Your task to perform on an android device: turn off notifications in google photos Image 0: 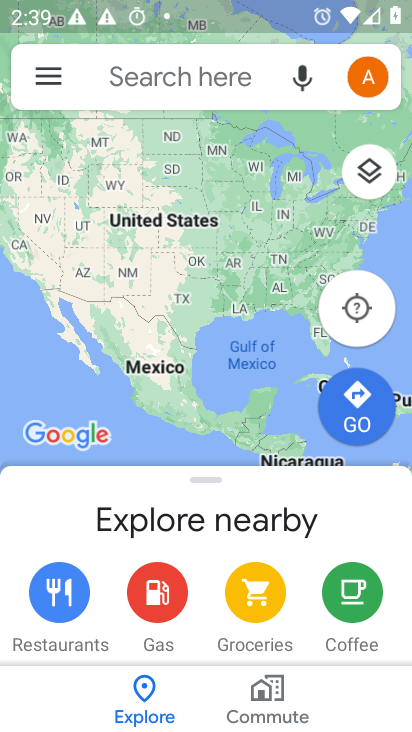
Step 0: press home button
Your task to perform on an android device: turn off notifications in google photos Image 1: 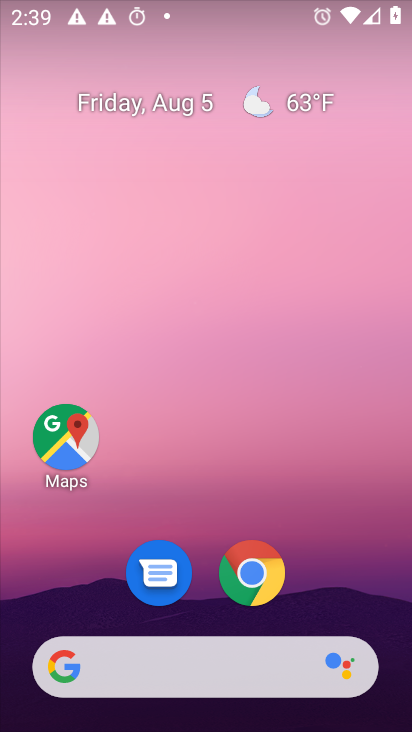
Step 1: drag from (348, 584) to (370, 114)
Your task to perform on an android device: turn off notifications in google photos Image 2: 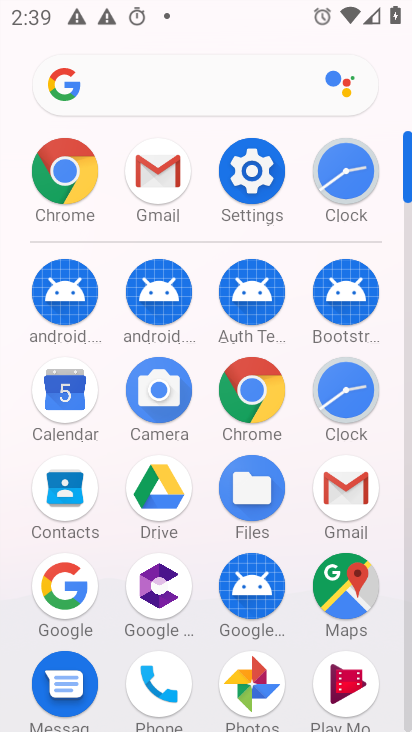
Step 2: click (253, 678)
Your task to perform on an android device: turn off notifications in google photos Image 3: 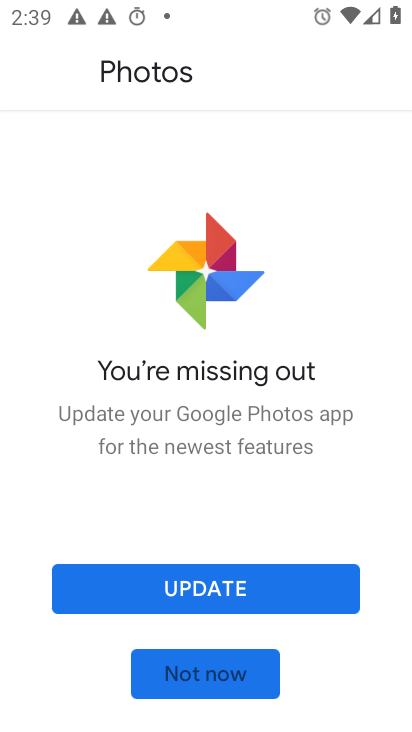
Step 3: click (216, 689)
Your task to perform on an android device: turn off notifications in google photos Image 4: 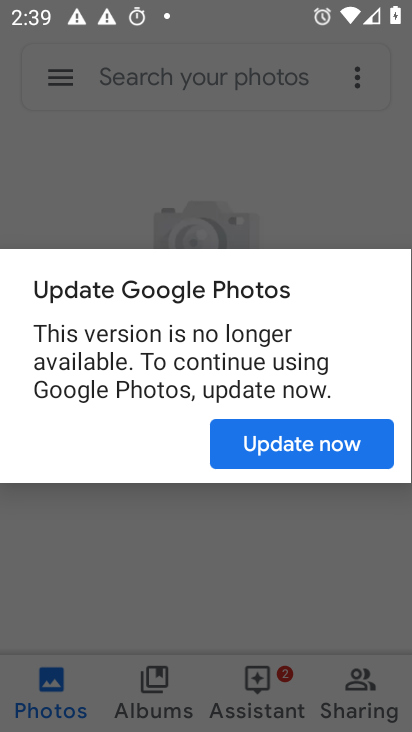
Step 4: click (325, 441)
Your task to perform on an android device: turn off notifications in google photos Image 5: 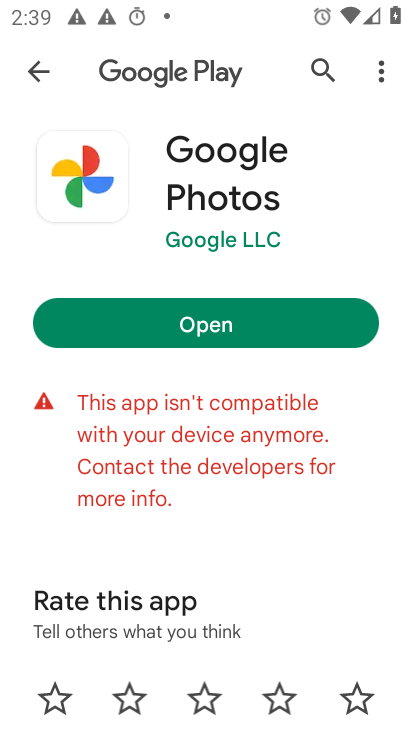
Step 5: click (331, 323)
Your task to perform on an android device: turn off notifications in google photos Image 6: 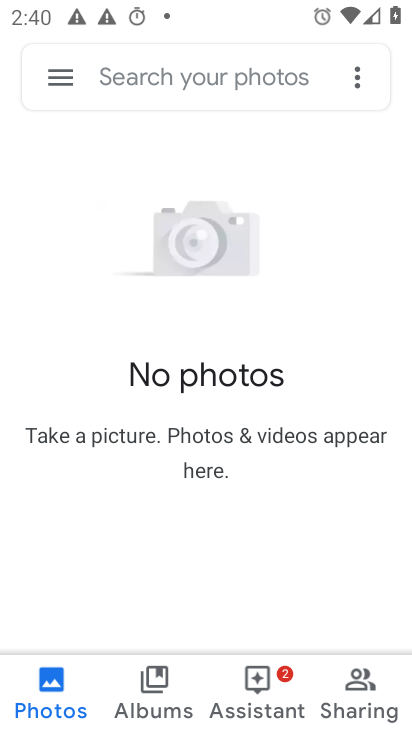
Step 6: click (61, 67)
Your task to perform on an android device: turn off notifications in google photos Image 7: 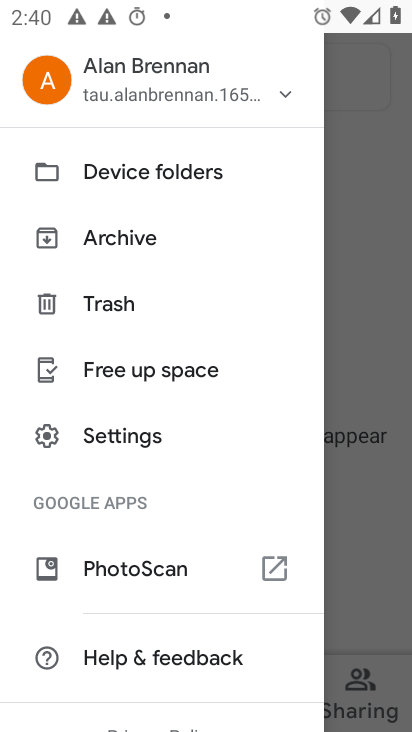
Step 7: drag from (249, 428) to (249, 335)
Your task to perform on an android device: turn off notifications in google photos Image 8: 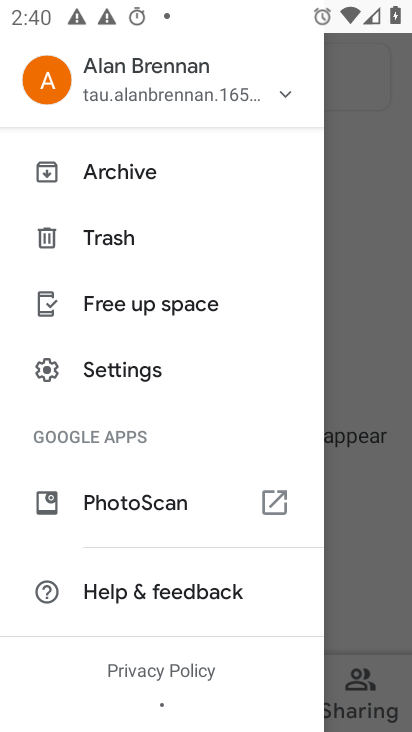
Step 8: click (194, 369)
Your task to perform on an android device: turn off notifications in google photos Image 9: 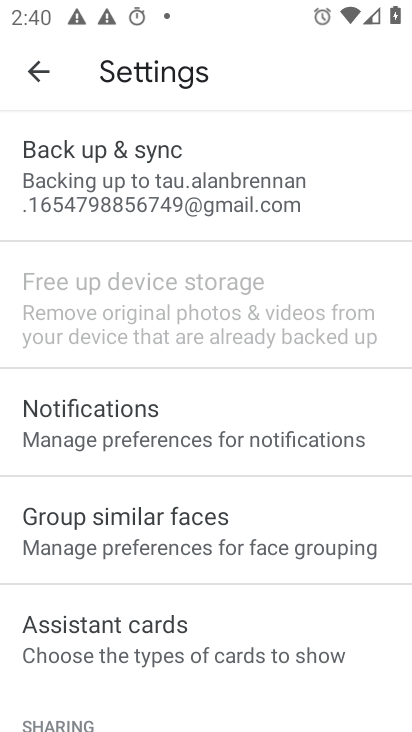
Step 9: click (240, 446)
Your task to perform on an android device: turn off notifications in google photos Image 10: 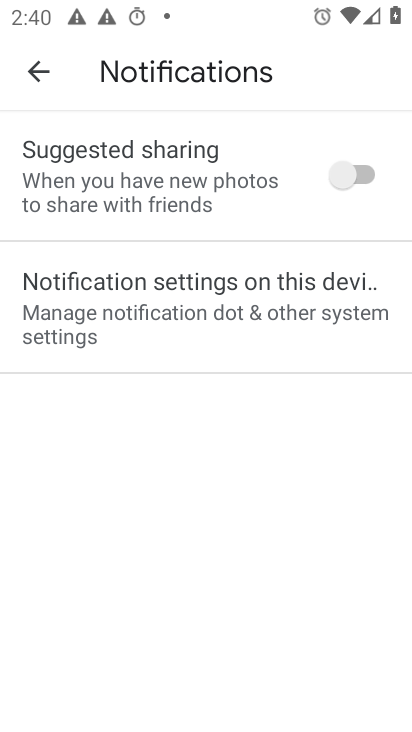
Step 10: click (300, 295)
Your task to perform on an android device: turn off notifications in google photos Image 11: 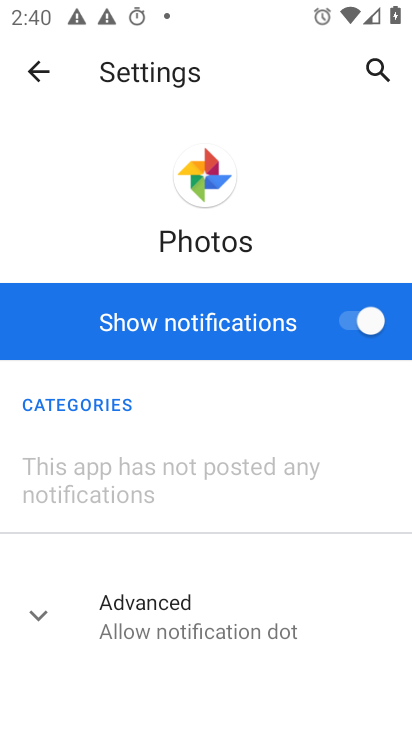
Step 11: click (373, 314)
Your task to perform on an android device: turn off notifications in google photos Image 12: 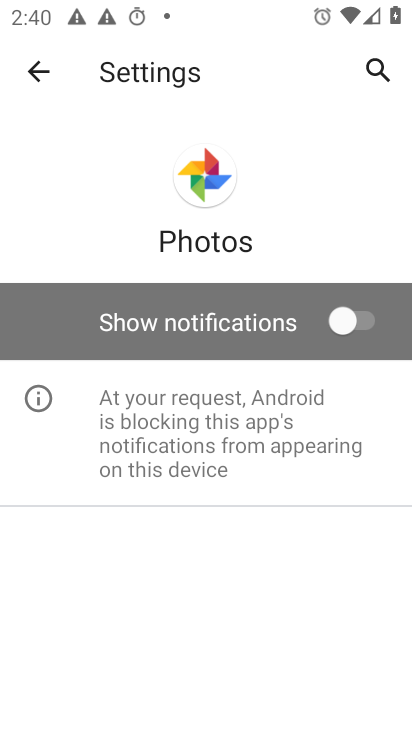
Step 12: task complete